Your task to perform on an android device: find snoozed emails in the gmail app Image 0: 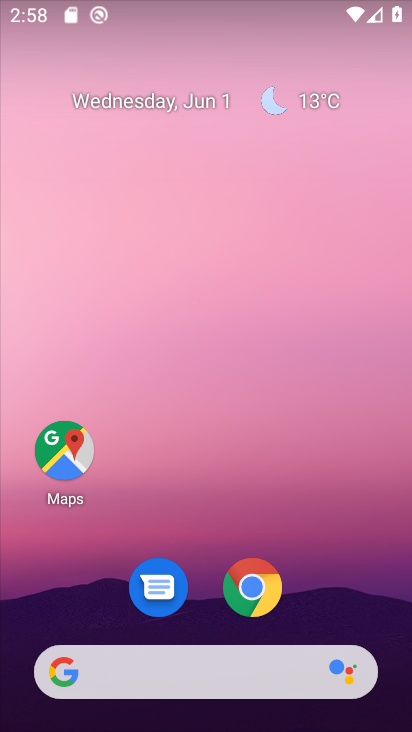
Step 0: drag from (365, 567) to (188, 10)
Your task to perform on an android device: find snoozed emails in the gmail app Image 1: 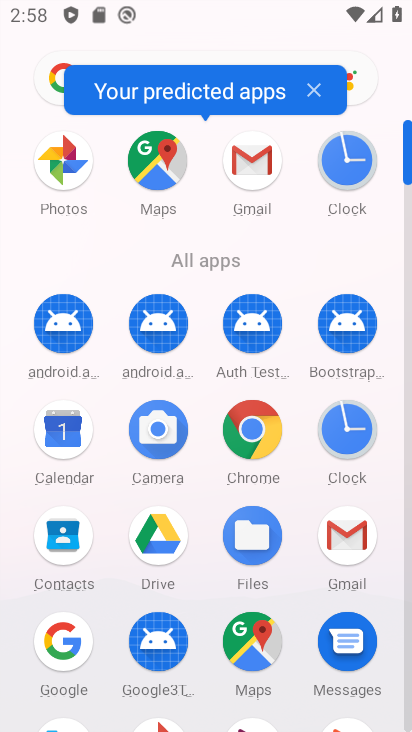
Step 1: drag from (8, 587) to (14, 195)
Your task to perform on an android device: find snoozed emails in the gmail app Image 2: 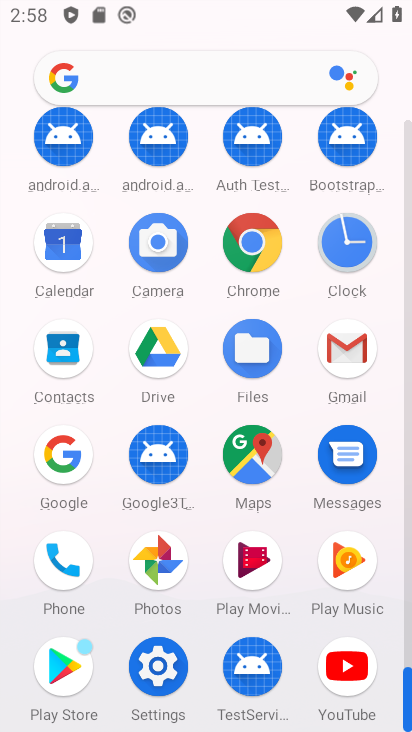
Step 2: click (345, 341)
Your task to perform on an android device: find snoozed emails in the gmail app Image 3: 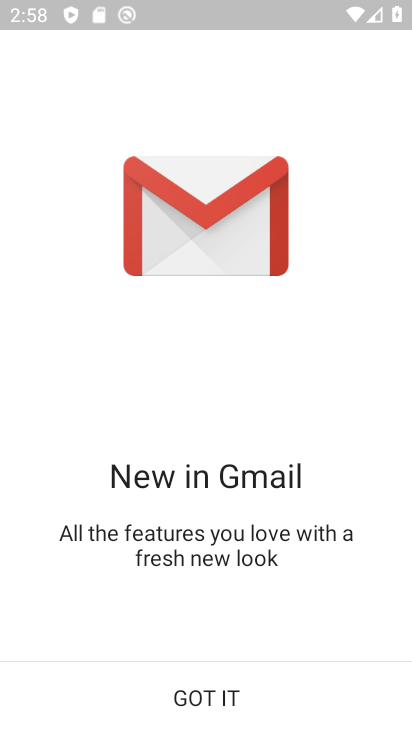
Step 3: click (204, 678)
Your task to perform on an android device: find snoozed emails in the gmail app Image 4: 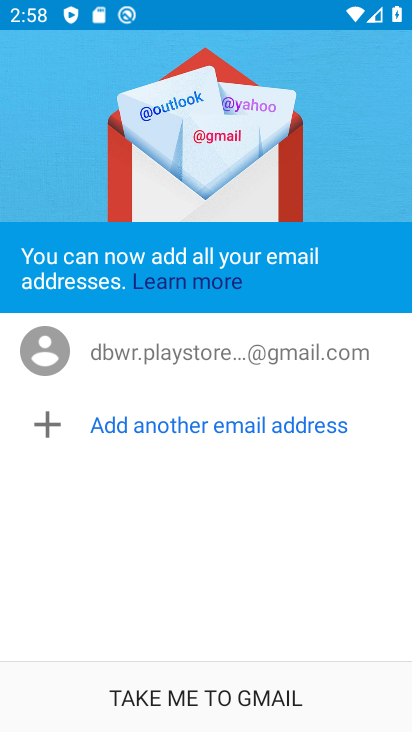
Step 4: click (206, 696)
Your task to perform on an android device: find snoozed emails in the gmail app Image 5: 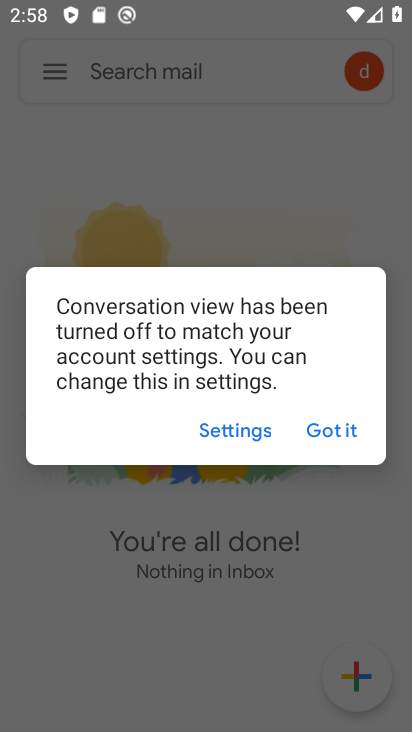
Step 5: click (330, 428)
Your task to perform on an android device: find snoozed emails in the gmail app Image 6: 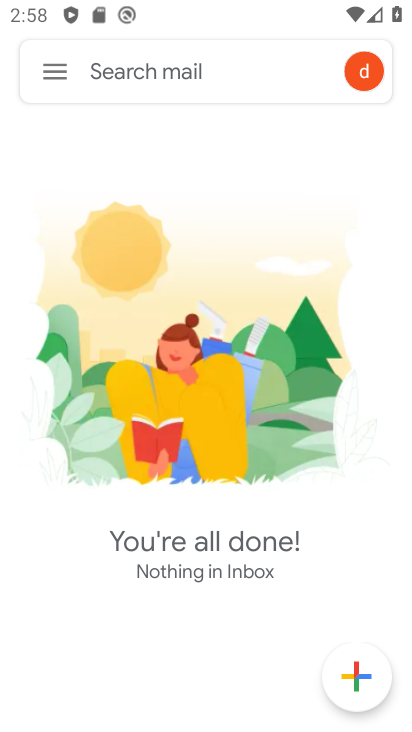
Step 6: click (66, 65)
Your task to perform on an android device: find snoozed emails in the gmail app Image 7: 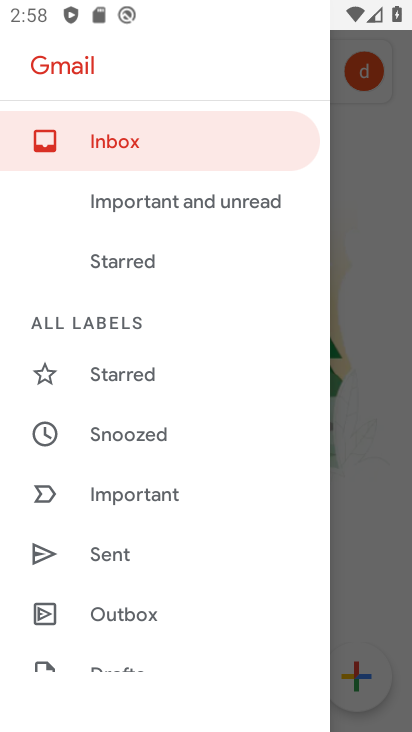
Step 7: drag from (137, 586) to (167, 354)
Your task to perform on an android device: find snoozed emails in the gmail app Image 8: 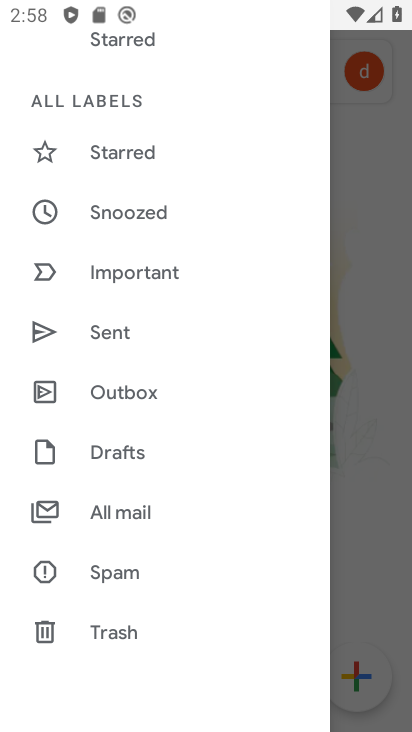
Step 8: click (138, 208)
Your task to perform on an android device: find snoozed emails in the gmail app Image 9: 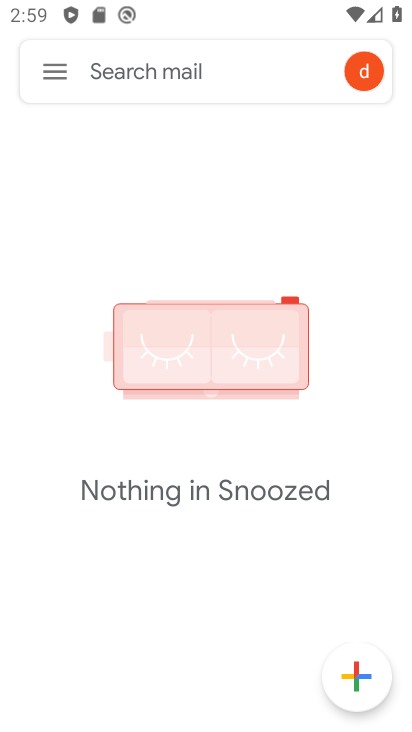
Step 9: task complete